Your task to perform on an android device: open app "Adobe Acrobat Reader: Edit PDF" Image 0: 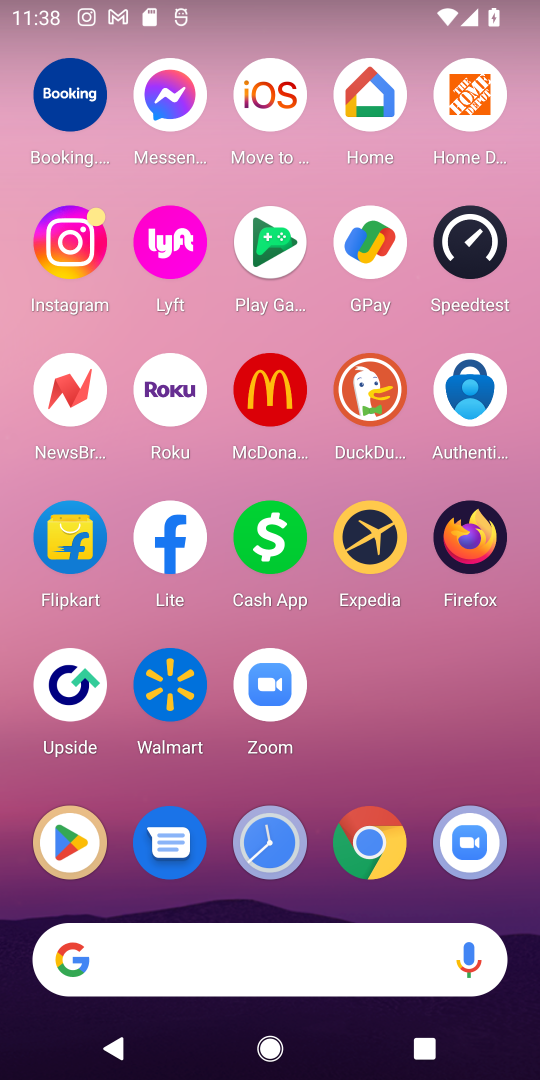
Step 0: press home button
Your task to perform on an android device: open app "Adobe Acrobat Reader: Edit PDF" Image 1: 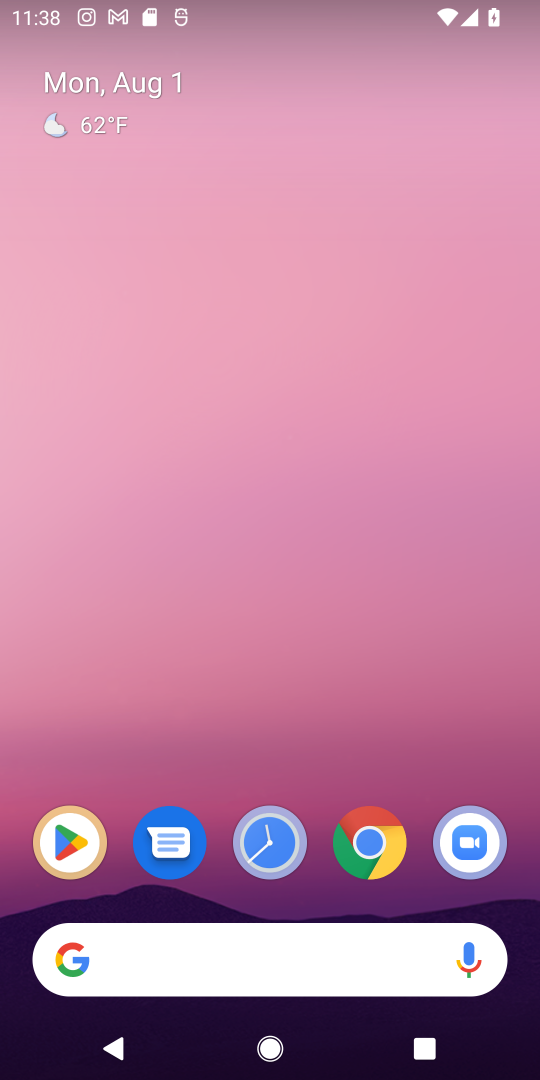
Step 1: click (72, 828)
Your task to perform on an android device: open app "Adobe Acrobat Reader: Edit PDF" Image 2: 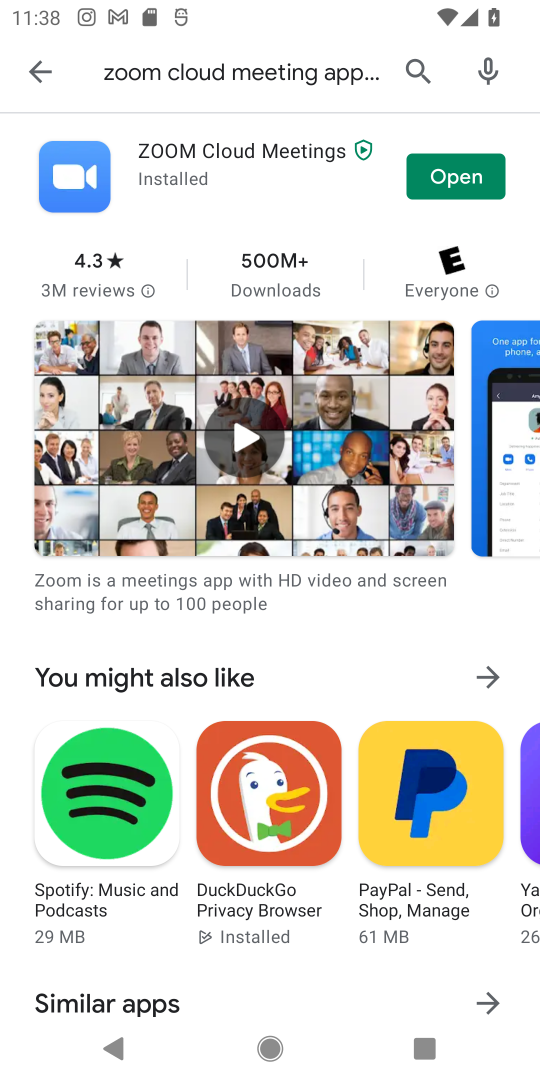
Step 2: click (417, 80)
Your task to perform on an android device: open app "Adobe Acrobat Reader: Edit PDF" Image 3: 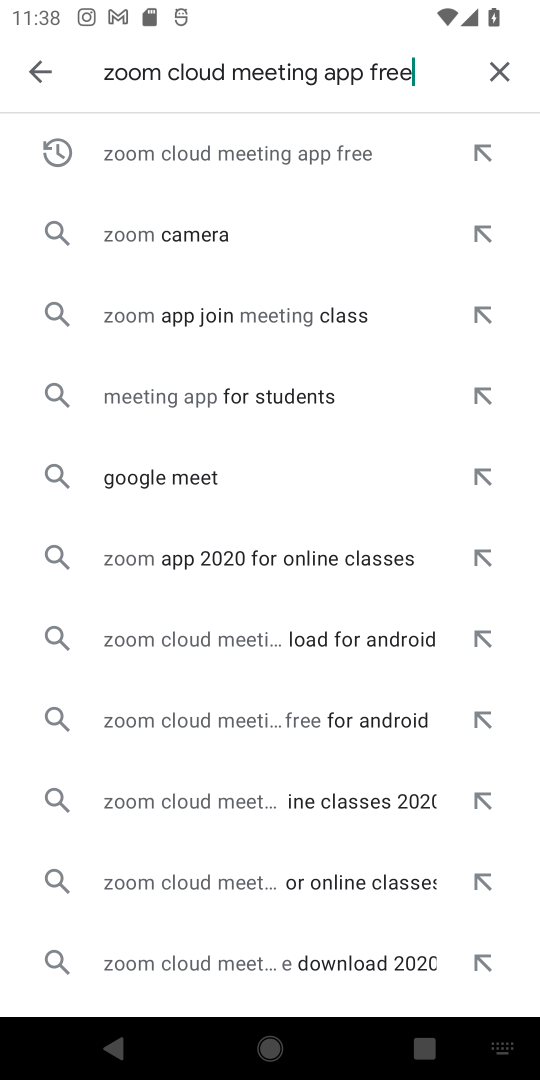
Step 3: click (490, 81)
Your task to perform on an android device: open app "Adobe Acrobat Reader: Edit PDF" Image 4: 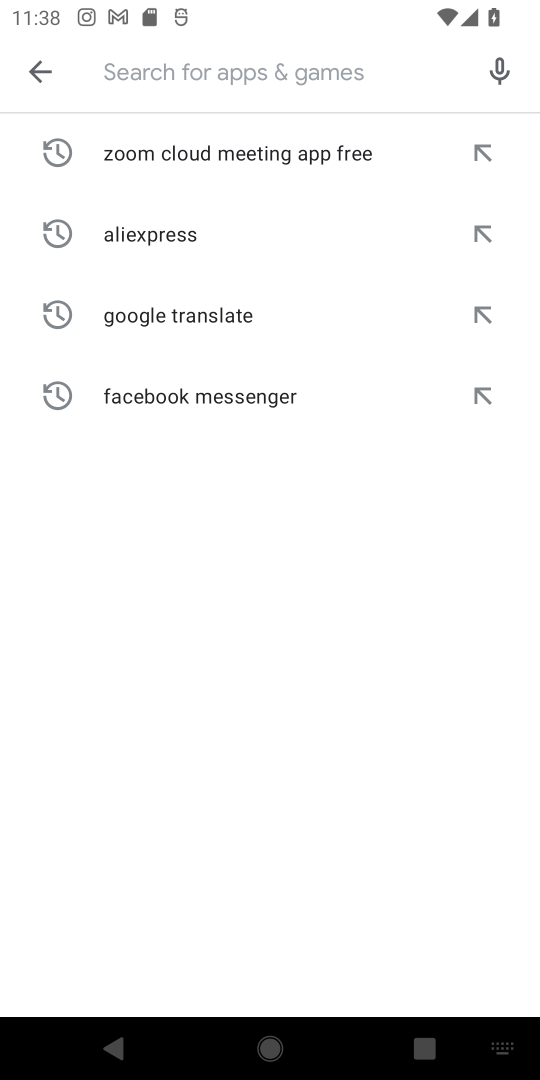
Step 4: click (277, 74)
Your task to perform on an android device: open app "Adobe Acrobat Reader: Edit PDF" Image 5: 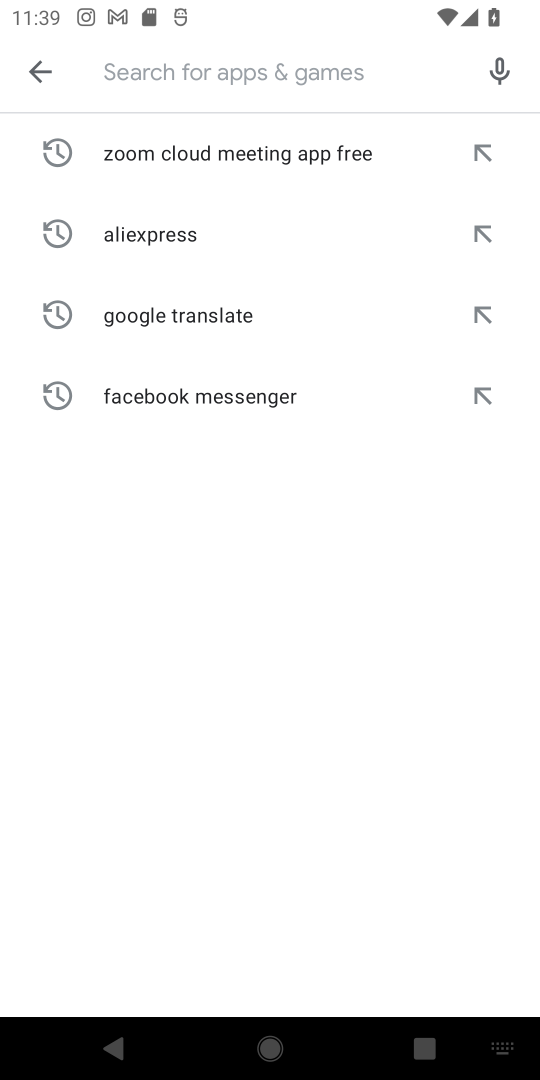
Step 5: type "Adobe Acrobat Reade"
Your task to perform on an android device: open app "Adobe Acrobat Reader: Edit PDF" Image 6: 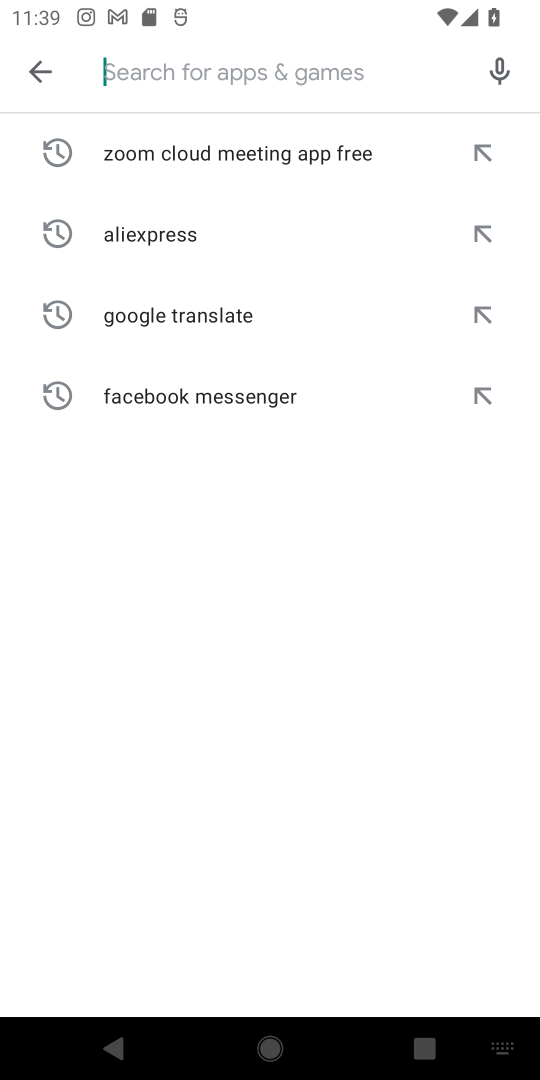
Step 6: click (278, 651)
Your task to perform on an android device: open app "Adobe Acrobat Reader: Edit PDF" Image 7: 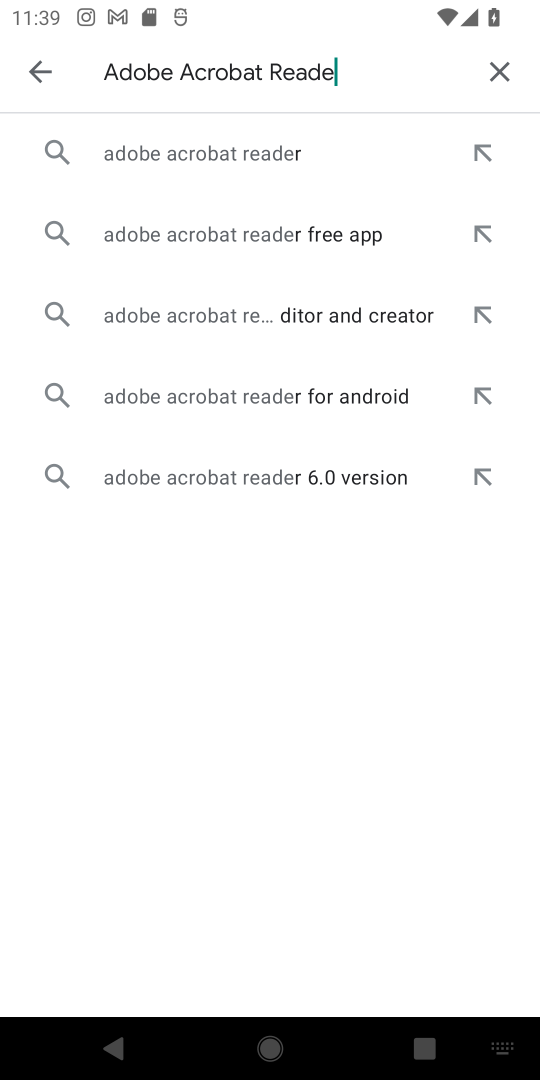
Step 7: click (165, 148)
Your task to perform on an android device: open app "Adobe Acrobat Reader: Edit PDF" Image 8: 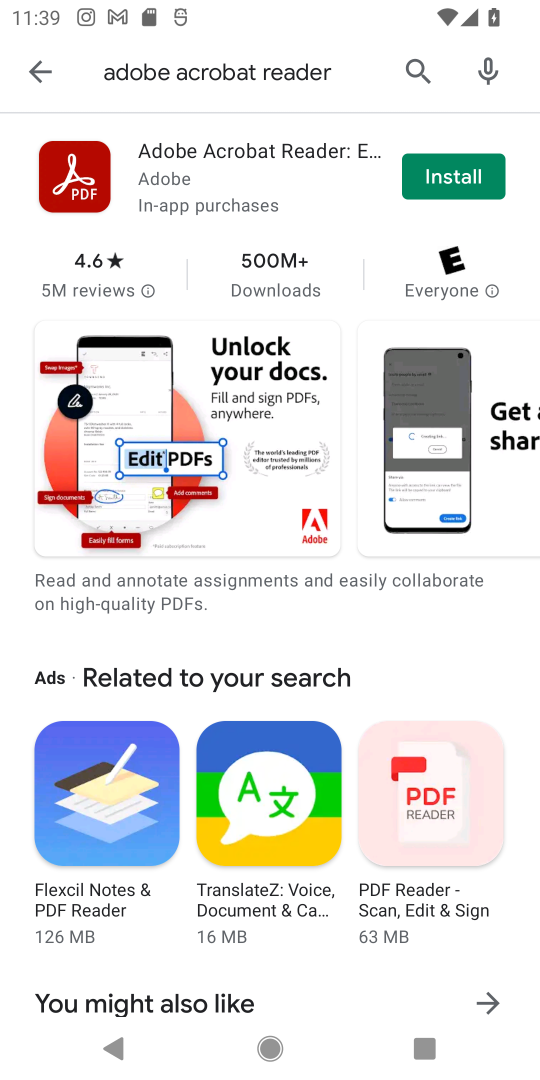
Step 8: task complete